Your task to perform on an android device: Go to Maps Image 0: 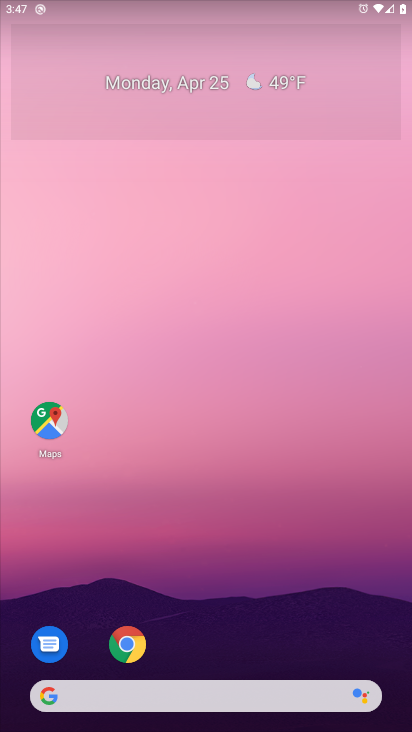
Step 0: press home button
Your task to perform on an android device: Go to Maps Image 1: 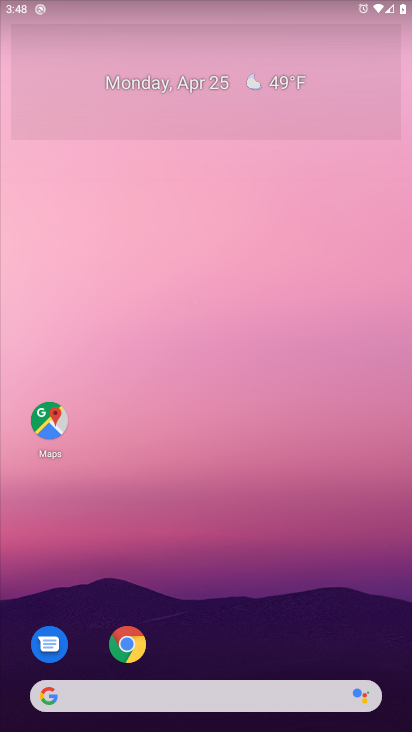
Step 1: drag from (235, 631) to (107, 6)
Your task to perform on an android device: Go to Maps Image 2: 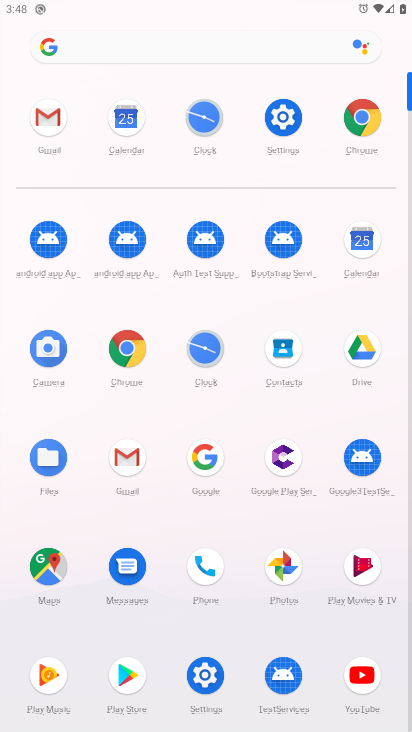
Step 2: click (57, 560)
Your task to perform on an android device: Go to Maps Image 3: 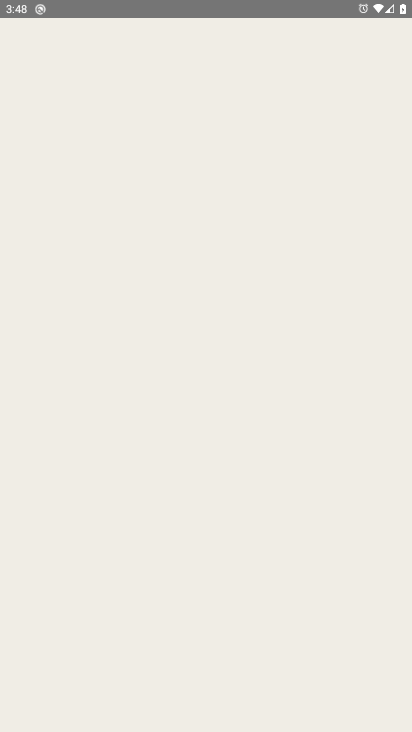
Step 3: task complete